Your task to perform on an android device: toggle airplane mode Image 0: 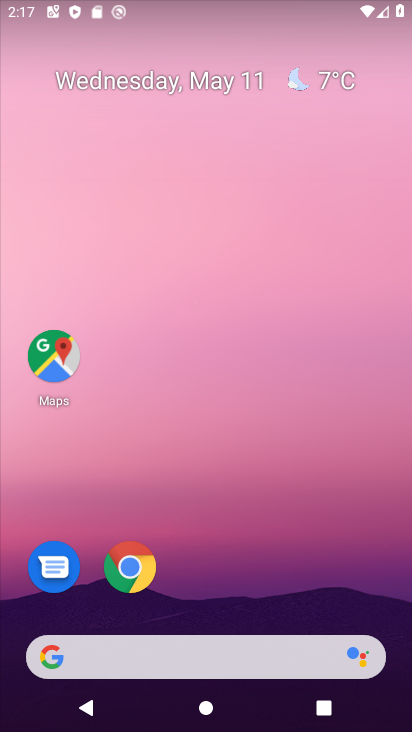
Step 0: drag from (241, 478) to (272, 73)
Your task to perform on an android device: toggle airplane mode Image 1: 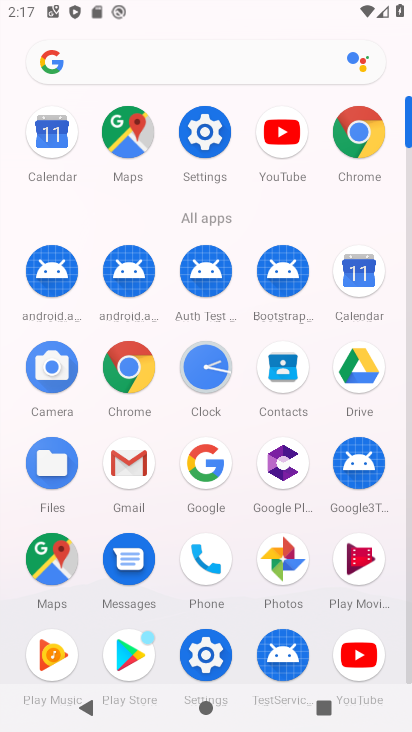
Step 1: click (208, 642)
Your task to perform on an android device: toggle airplane mode Image 2: 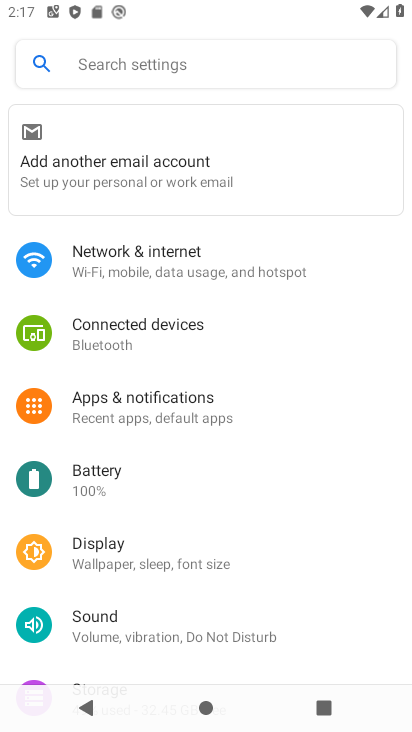
Step 2: click (189, 288)
Your task to perform on an android device: toggle airplane mode Image 3: 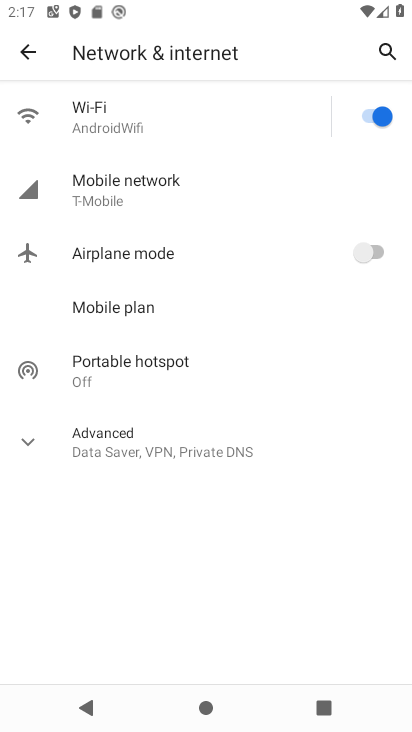
Step 3: click (372, 121)
Your task to perform on an android device: toggle airplane mode Image 4: 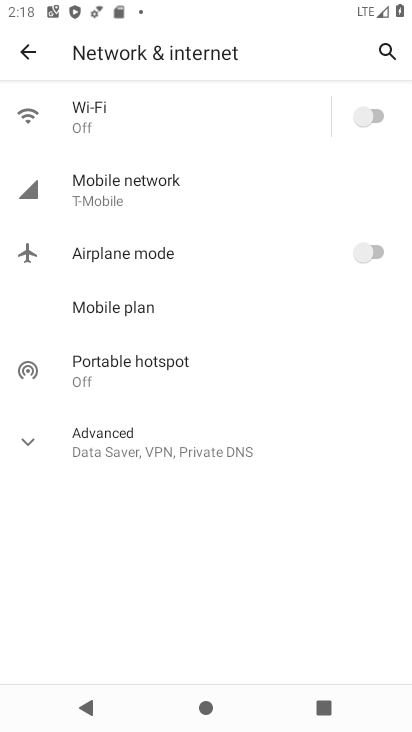
Step 4: task complete